Your task to perform on an android device: Open Google Image 0: 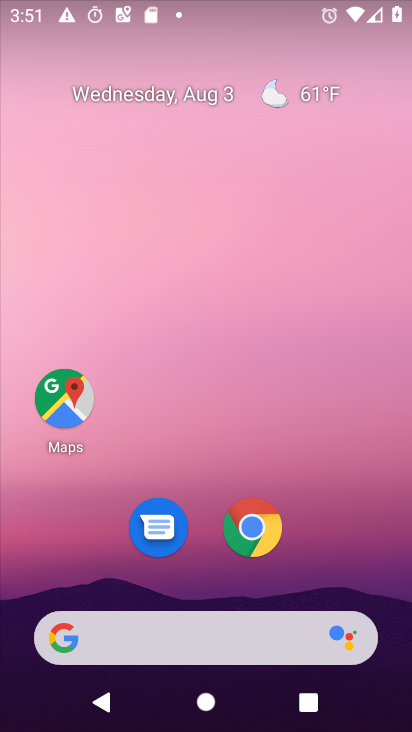
Step 0: drag from (326, 549) to (305, 141)
Your task to perform on an android device: Open Google Image 1: 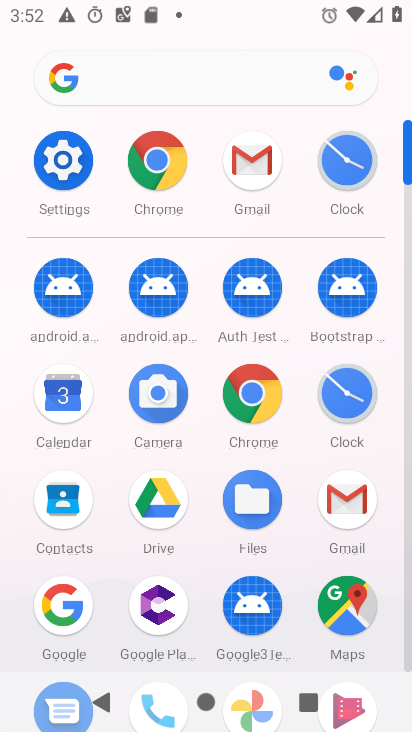
Step 1: click (68, 599)
Your task to perform on an android device: Open Google Image 2: 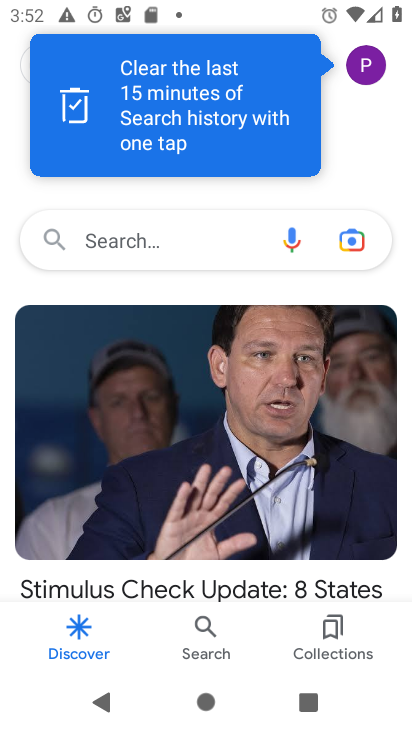
Step 2: task complete